Your task to perform on an android device: Open Chrome and go to the settings page Image 0: 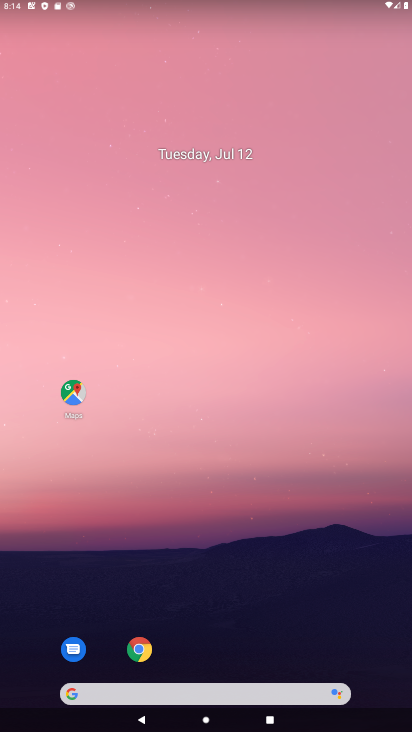
Step 0: click (142, 652)
Your task to perform on an android device: Open Chrome and go to the settings page Image 1: 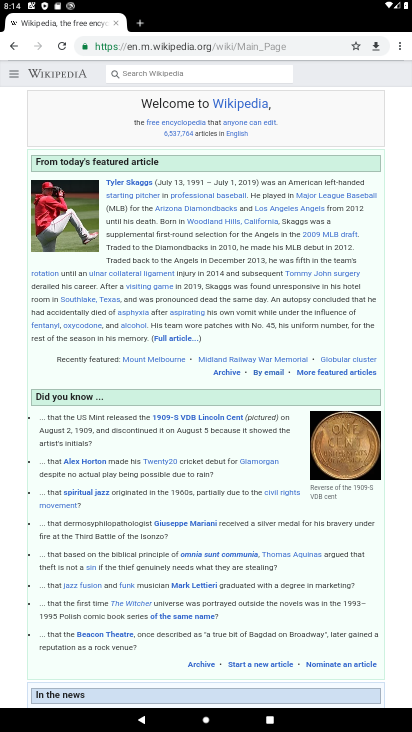
Step 1: click (396, 47)
Your task to perform on an android device: Open Chrome and go to the settings page Image 2: 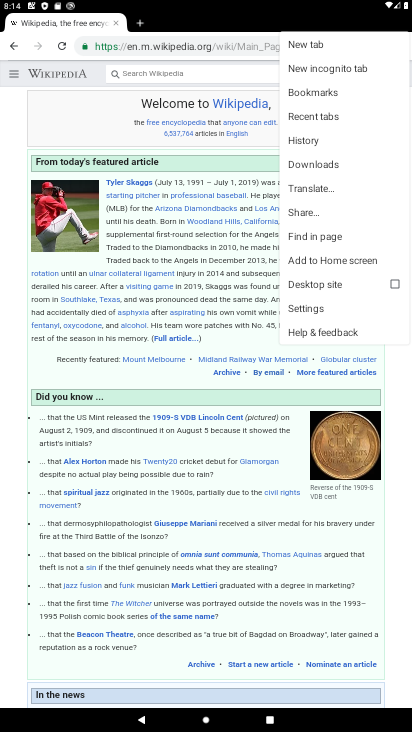
Step 2: click (308, 310)
Your task to perform on an android device: Open Chrome and go to the settings page Image 3: 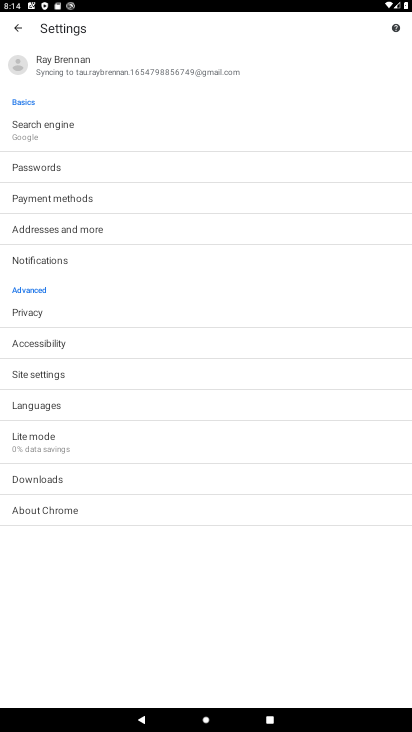
Step 3: task complete